Your task to perform on an android device: turn off data saver in the chrome app Image 0: 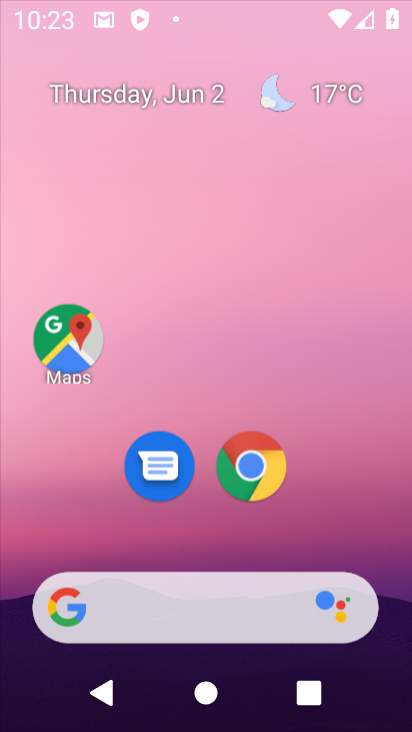
Step 0: press home button
Your task to perform on an android device: turn off data saver in the chrome app Image 1: 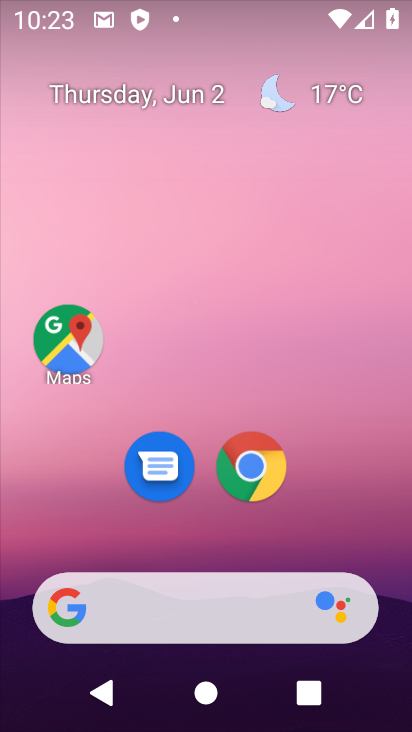
Step 1: drag from (296, 540) to (259, 0)
Your task to perform on an android device: turn off data saver in the chrome app Image 2: 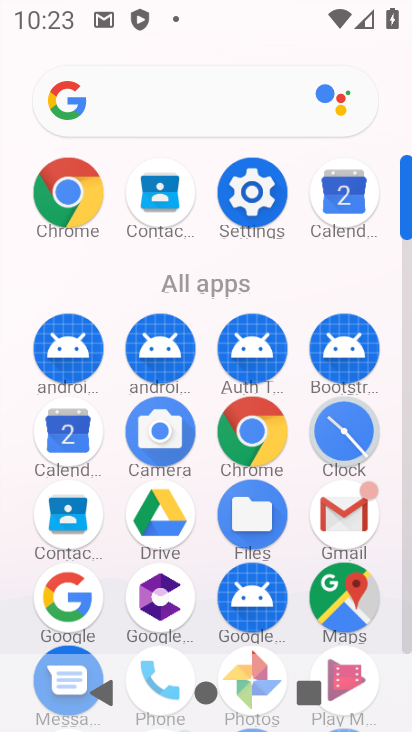
Step 2: click (94, 205)
Your task to perform on an android device: turn off data saver in the chrome app Image 3: 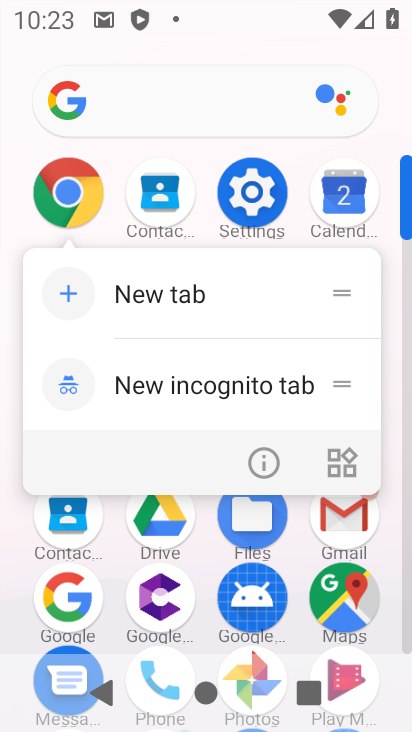
Step 3: click (57, 188)
Your task to perform on an android device: turn off data saver in the chrome app Image 4: 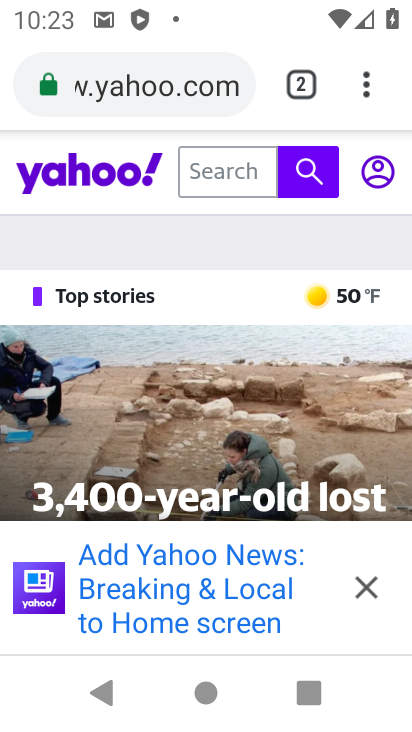
Step 4: drag from (364, 93) to (207, 530)
Your task to perform on an android device: turn off data saver in the chrome app Image 5: 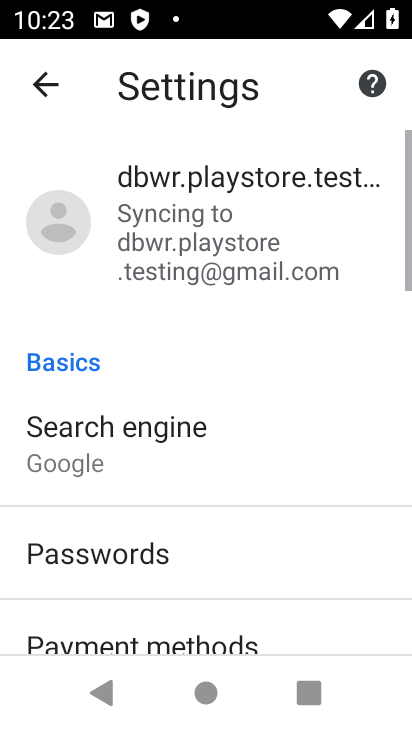
Step 5: drag from (296, 569) to (280, 106)
Your task to perform on an android device: turn off data saver in the chrome app Image 6: 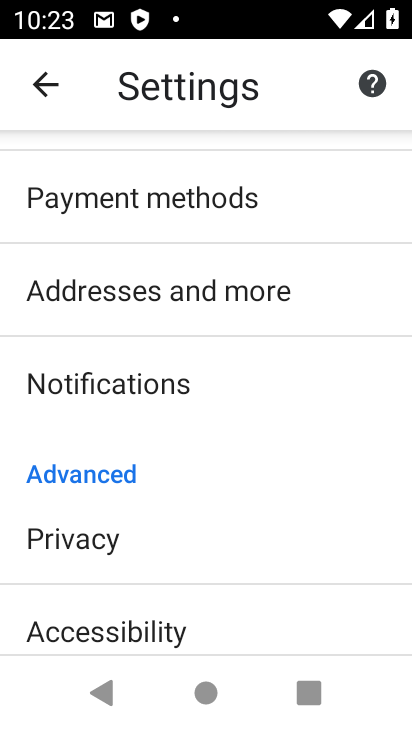
Step 6: drag from (259, 618) to (198, 236)
Your task to perform on an android device: turn off data saver in the chrome app Image 7: 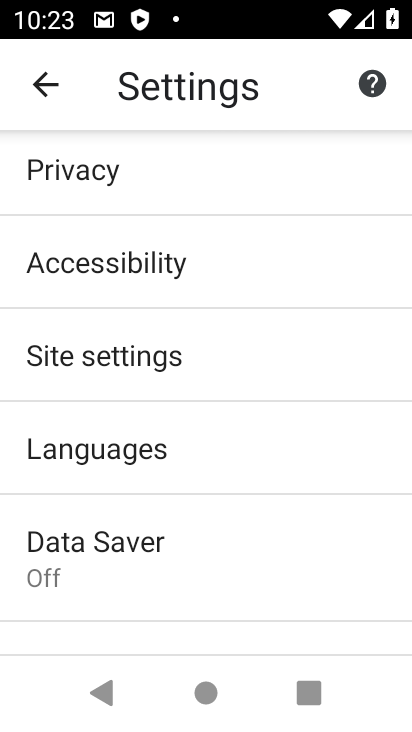
Step 7: click (95, 550)
Your task to perform on an android device: turn off data saver in the chrome app Image 8: 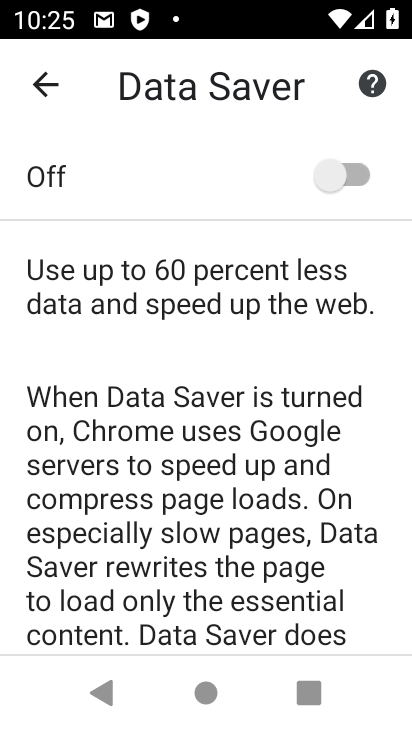
Step 8: task complete